Your task to perform on an android device: Open battery settings Image 0: 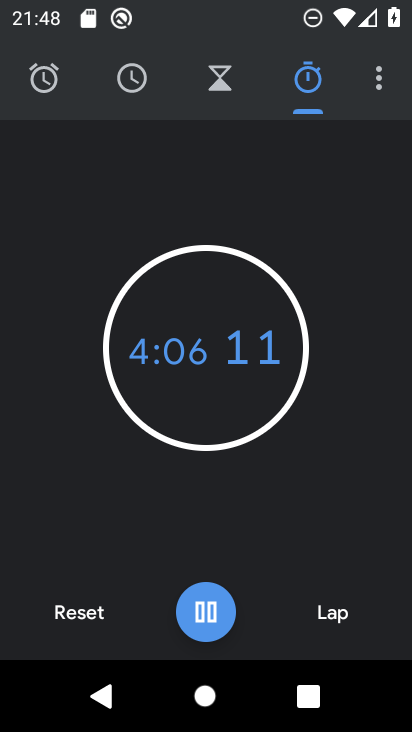
Step 0: press home button
Your task to perform on an android device: Open battery settings Image 1: 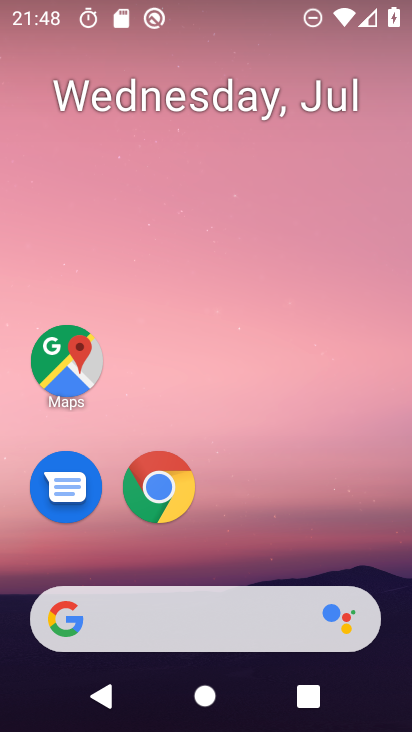
Step 1: drag from (315, 527) to (332, 100)
Your task to perform on an android device: Open battery settings Image 2: 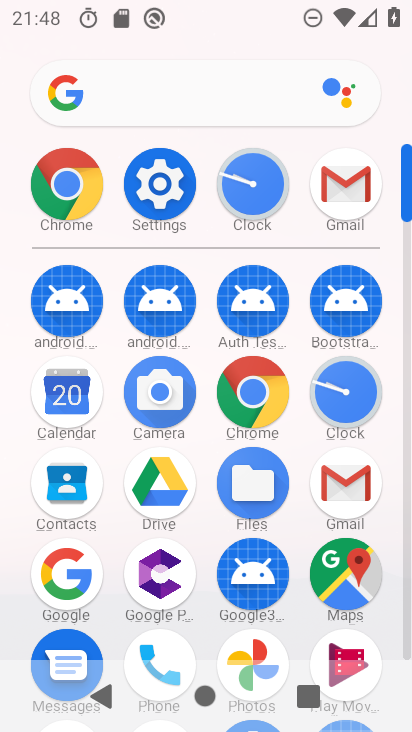
Step 2: click (173, 195)
Your task to perform on an android device: Open battery settings Image 3: 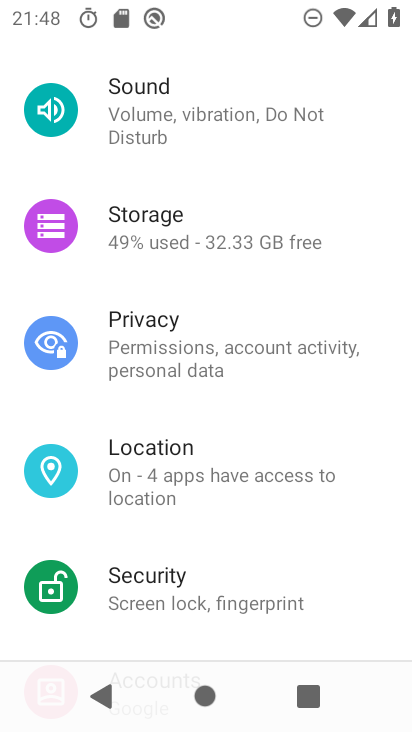
Step 3: drag from (348, 254) to (354, 315)
Your task to perform on an android device: Open battery settings Image 4: 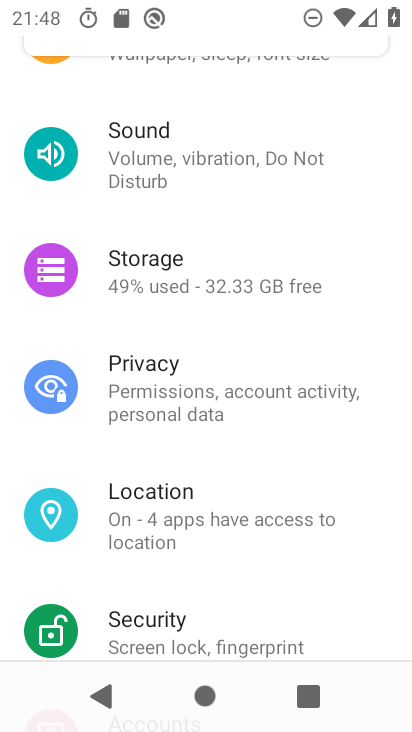
Step 4: drag from (350, 275) to (349, 311)
Your task to perform on an android device: Open battery settings Image 5: 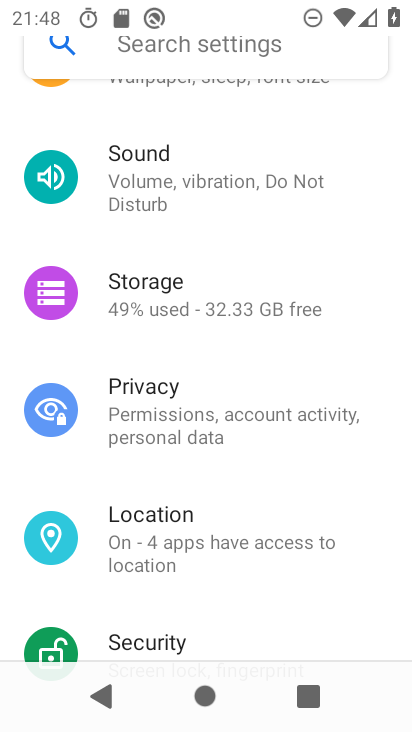
Step 5: drag from (363, 246) to (357, 322)
Your task to perform on an android device: Open battery settings Image 6: 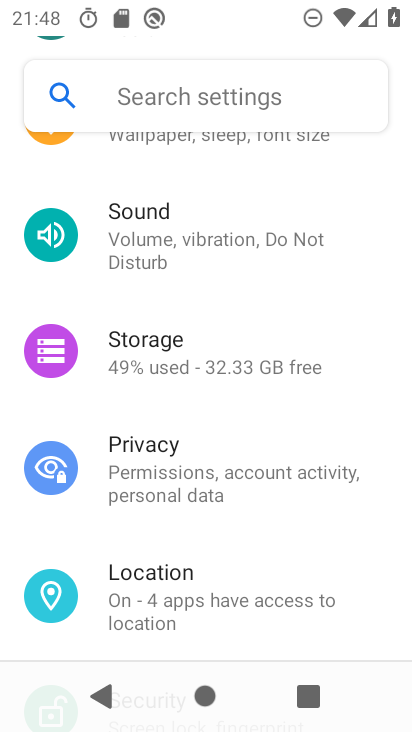
Step 6: drag from (358, 236) to (351, 325)
Your task to perform on an android device: Open battery settings Image 7: 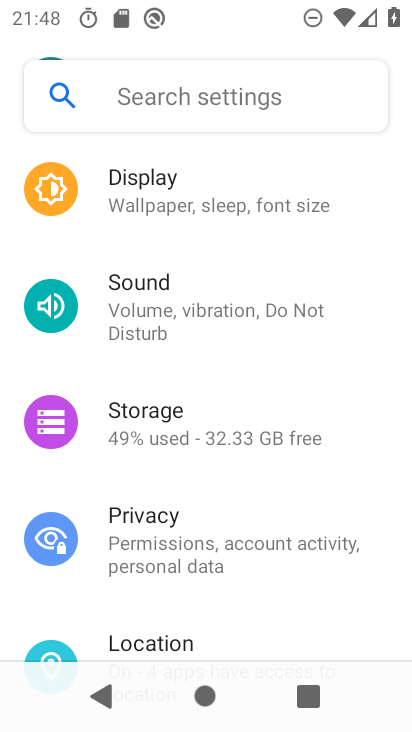
Step 7: drag from (361, 243) to (363, 334)
Your task to perform on an android device: Open battery settings Image 8: 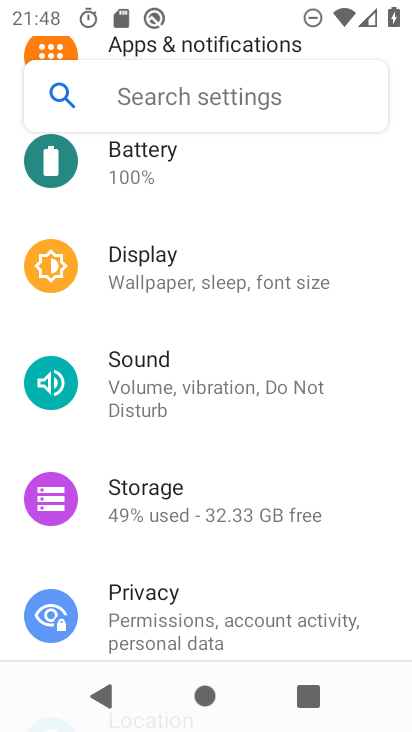
Step 8: drag from (354, 229) to (356, 331)
Your task to perform on an android device: Open battery settings Image 9: 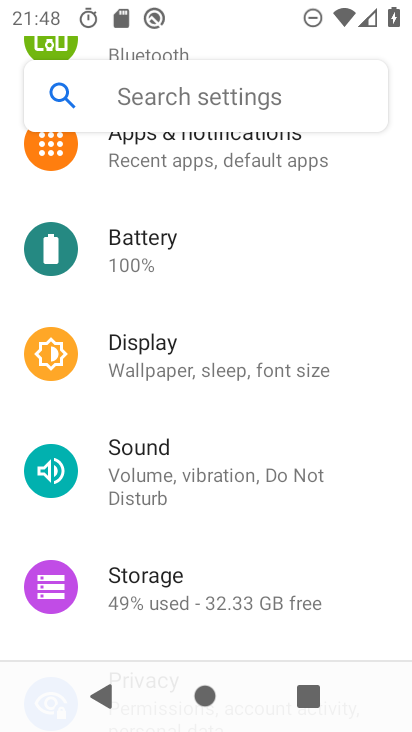
Step 9: drag from (350, 252) to (346, 342)
Your task to perform on an android device: Open battery settings Image 10: 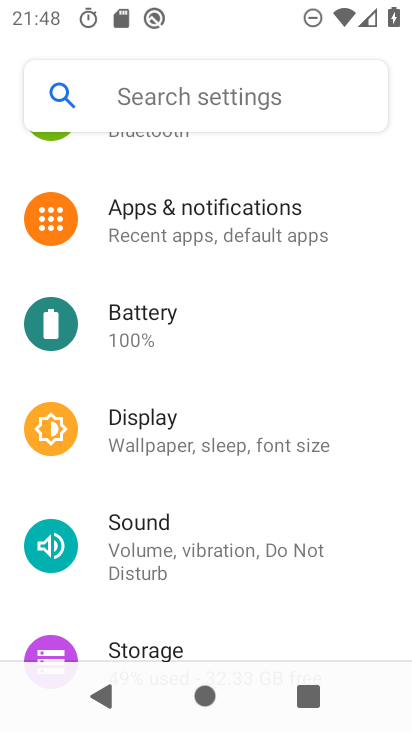
Step 10: drag from (359, 265) to (365, 392)
Your task to perform on an android device: Open battery settings Image 11: 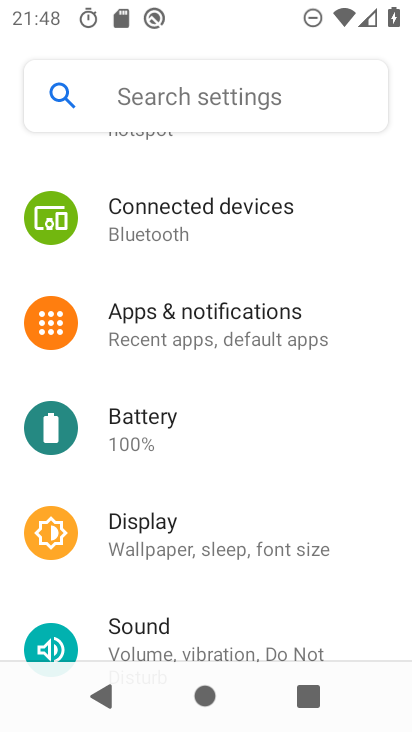
Step 11: click (189, 429)
Your task to perform on an android device: Open battery settings Image 12: 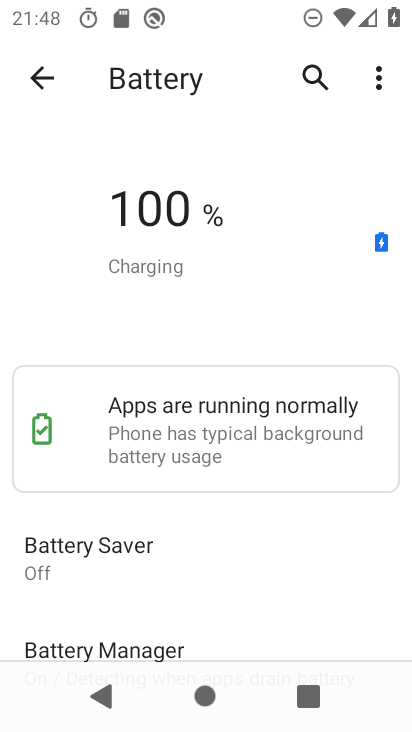
Step 12: task complete